Your task to perform on an android device: open app "Facebook" (install if not already installed), go to login, and select forgot password Image 0: 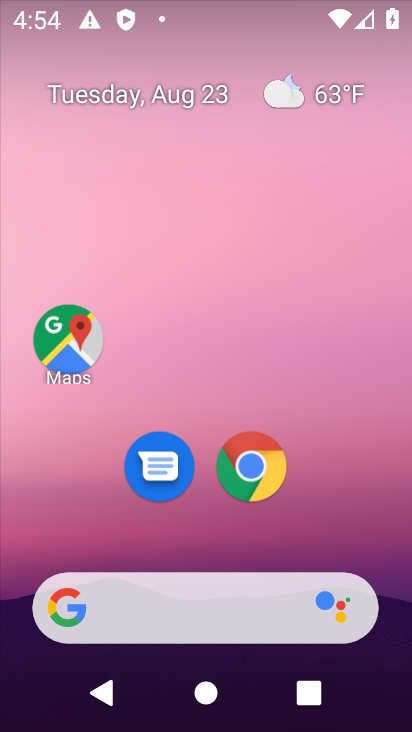
Step 0: drag from (172, 569) to (2, 83)
Your task to perform on an android device: open app "Facebook" (install if not already installed), go to login, and select forgot password Image 1: 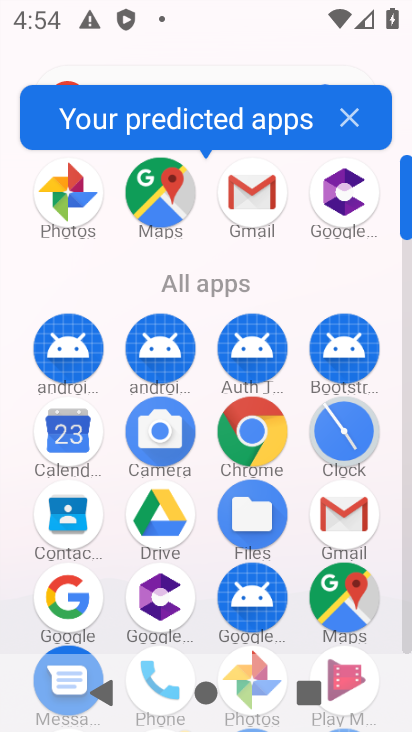
Step 1: drag from (272, 579) to (313, 71)
Your task to perform on an android device: open app "Facebook" (install if not already installed), go to login, and select forgot password Image 2: 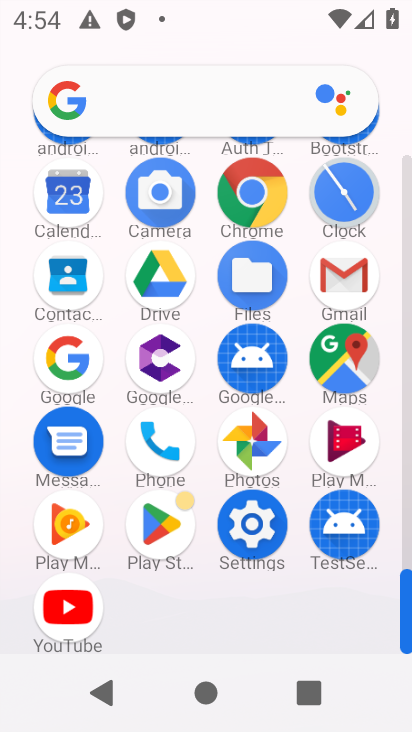
Step 2: click (170, 549)
Your task to perform on an android device: open app "Facebook" (install if not already installed), go to login, and select forgot password Image 3: 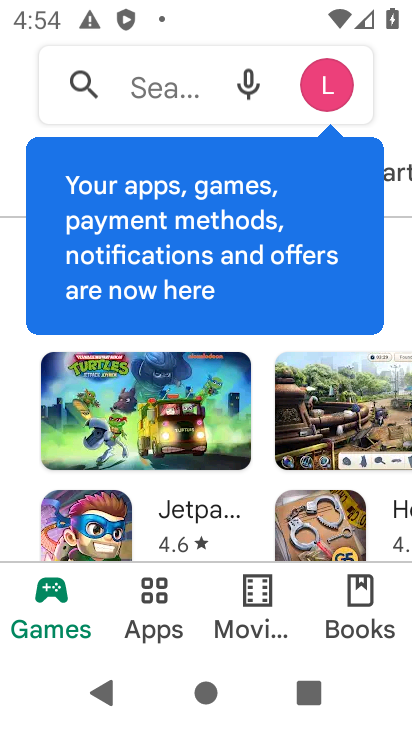
Step 3: click (198, 97)
Your task to perform on an android device: open app "Facebook" (install if not already installed), go to login, and select forgot password Image 4: 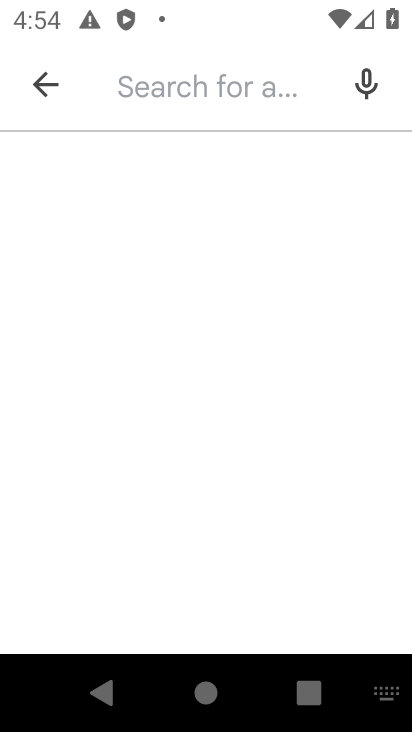
Step 4: type "facebook"
Your task to perform on an android device: open app "Facebook" (install if not already installed), go to login, and select forgot password Image 5: 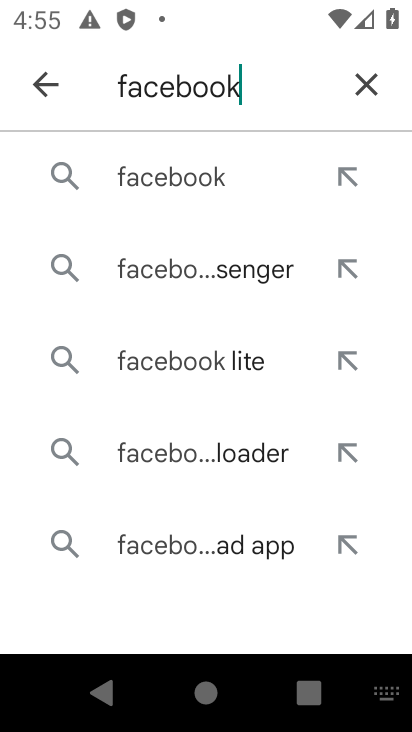
Step 5: click (167, 152)
Your task to perform on an android device: open app "Facebook" (install if not already installed), go to login, and select forgot password Image 6: 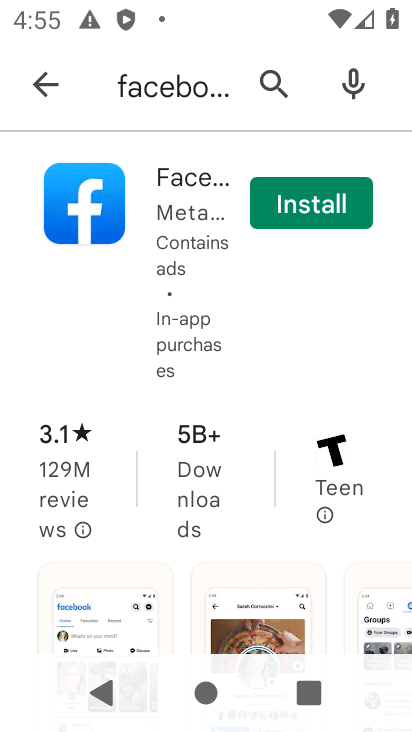
Step 6: click (284, 203)
Your task to perform on an android device: open app "Facebook" (install if not already installed), go to login, and select forgot password Image 7: 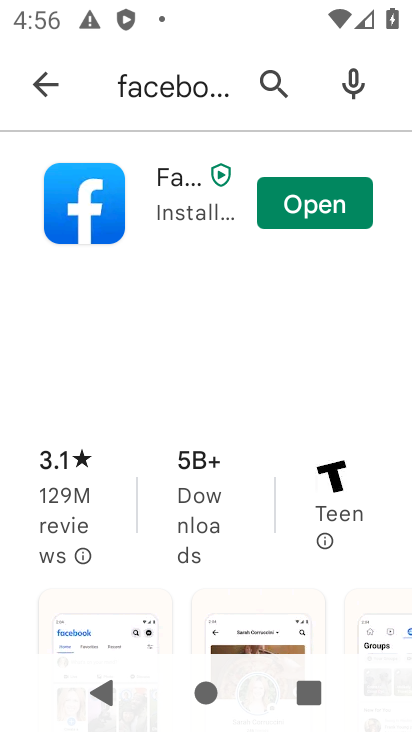
Step 7: click (328, 212)
Your task to perform on an android device: open app "Facebook" (install if not already installed), go to login, and select forgot password Image 8: 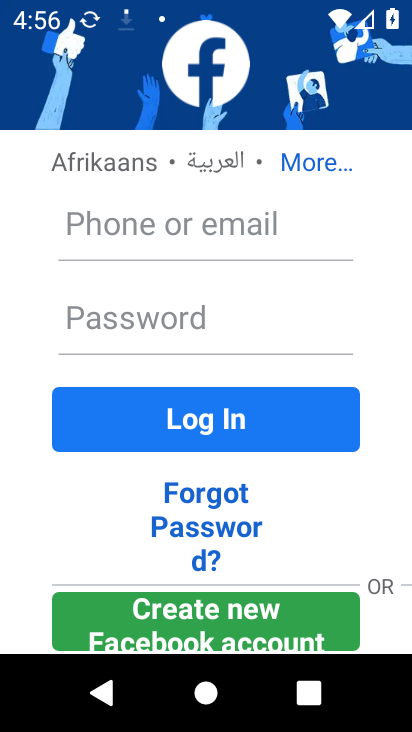
Step 8: click (204, 500)
Your task to perform on an android device: open app "Facebook" (install if not already installed), go to login, and select forgot password Image 9: 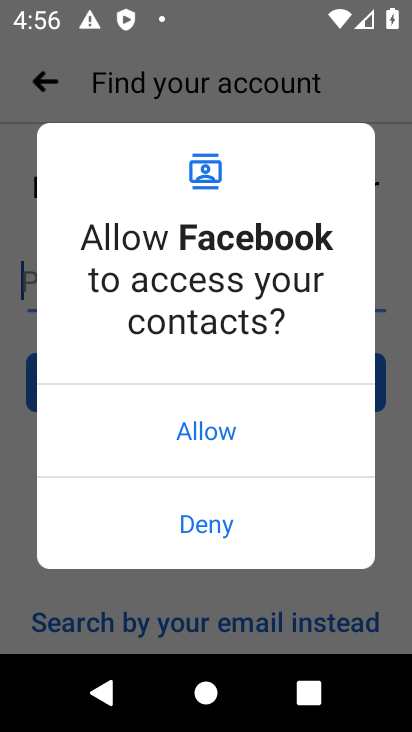
Step 9: task complete